Your task to perform on an android device: allow cookies in the chrome app Image 0: 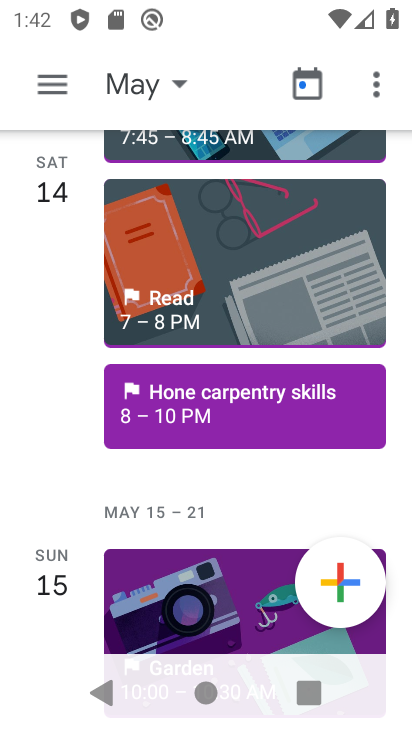
Step 0: press home button
Your task to perform on an android device: allow cookies in the chrome app Image 1: 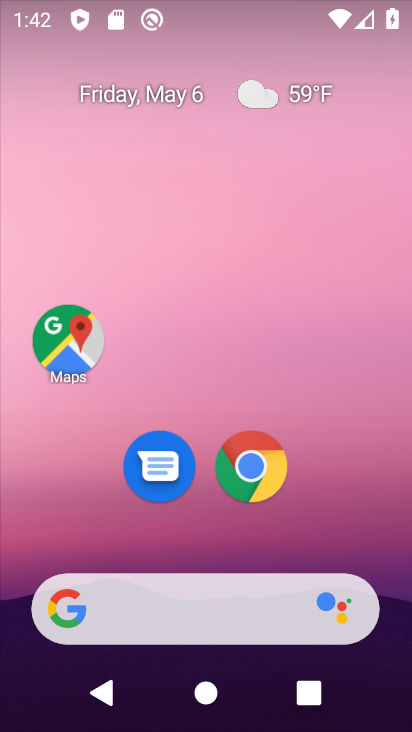
Step 1: click (246, 464)
Your task to perform on an android device: allow cookies in the chrome app Image 2: 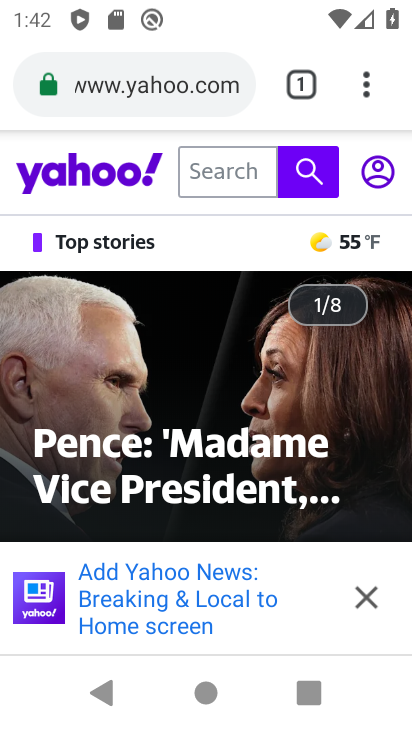
Step 2: click (364, 79)
Your task to perform on an android device: allow cookies in the chrome app Image 3: 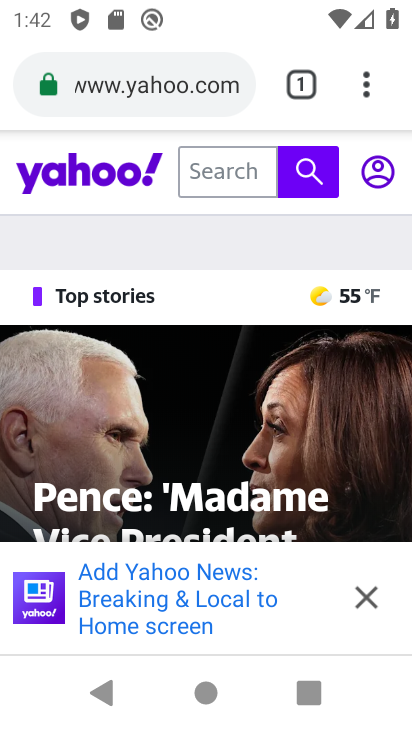
Step 3: click (364, 81)
Your task to perform on an android device: allow cookies in the chrome app Image 4: 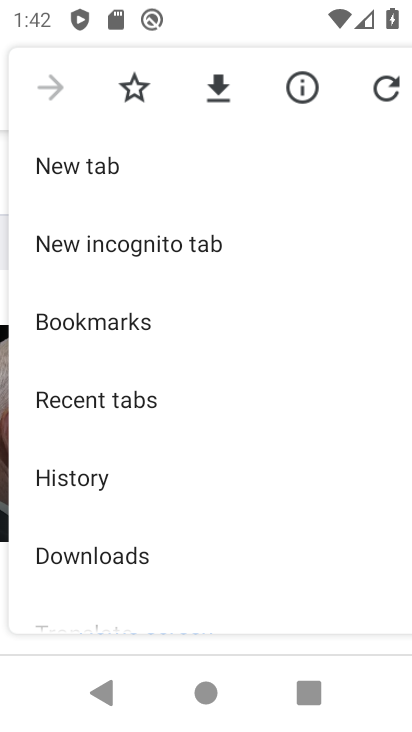
Step 4: drag from (172, 541) to (240, 79)
Your task to perform on an android device: allow cookies in the chrome app Image 5: 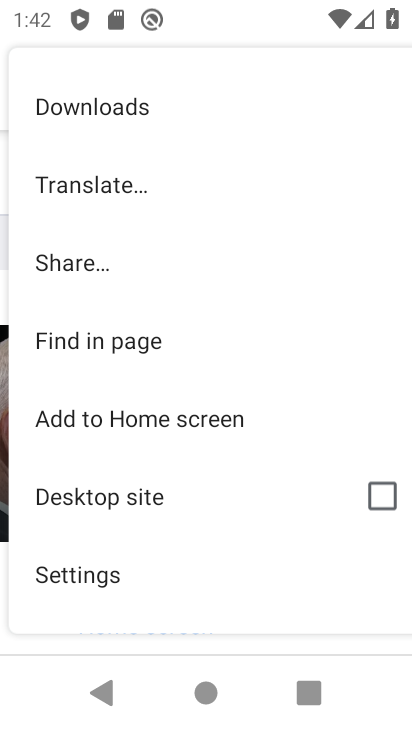
Step 5: click (134, 572)
Your task to perform on an android device: allow cookies in the chrome app Image 6: 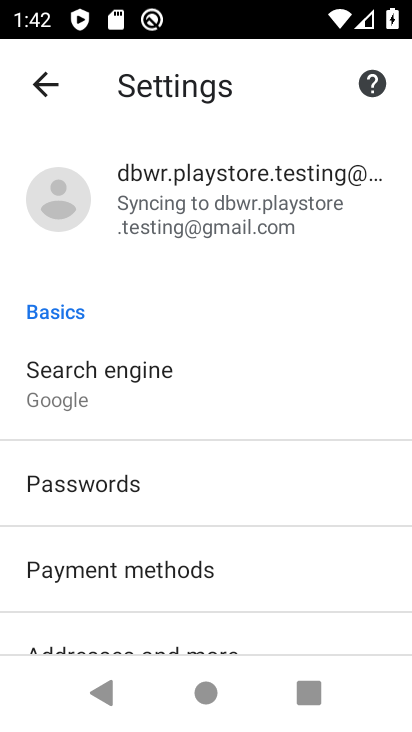
Step 6: drag from (205, 596) to (275, 100)
Your task to perform on an android device: allow cookies in the chrome app Image 7: 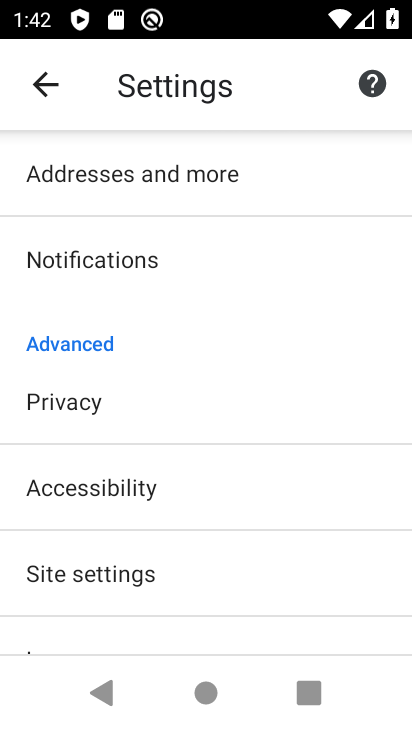
Step 7: click (161, 569)
Your task to perform on an android device: allow cookies in the chrome app Image 8: 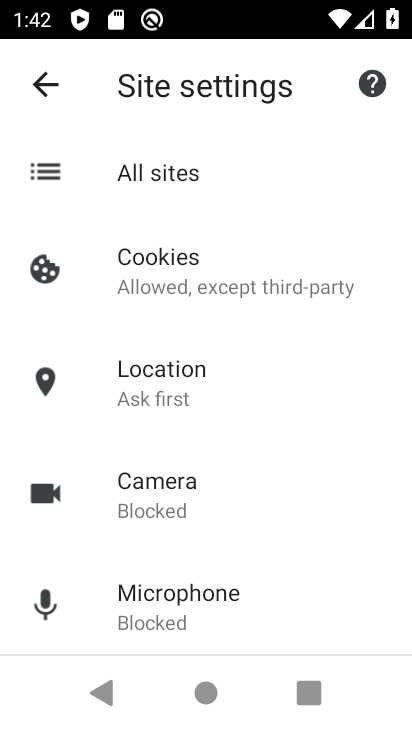
Step 8: click (209, 270)
Your task to perform on an android device: allow cookies in the chrome app Image 9: 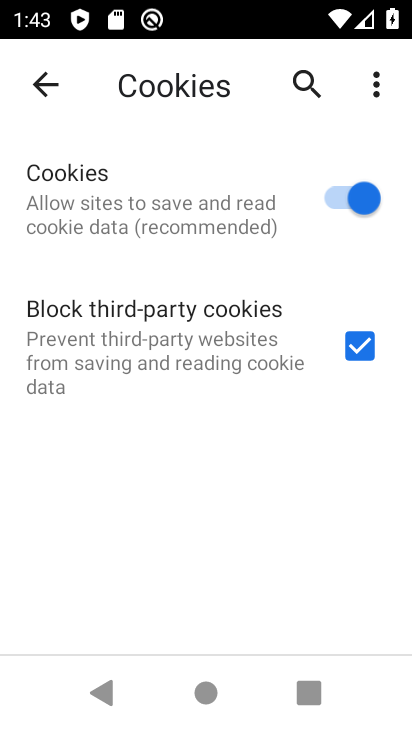
Step 9: task complete